Your task to perform on an android device: Search for sushi restaurants on Maps Image 0: 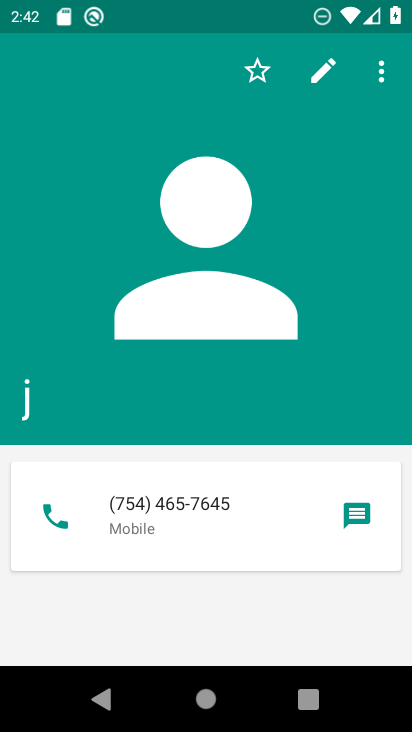
Step 0: press home button
Your task to perform on an android device: Search for sushi restaurants on Maps Image 1: 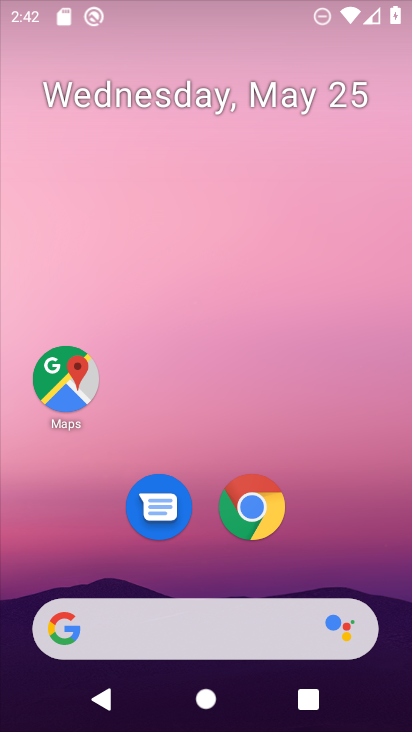
Step 1: drag from (192, 531) to (192, 235)
Your task to perform on an android device: Search for sushi restaurants on Maps Image 2: 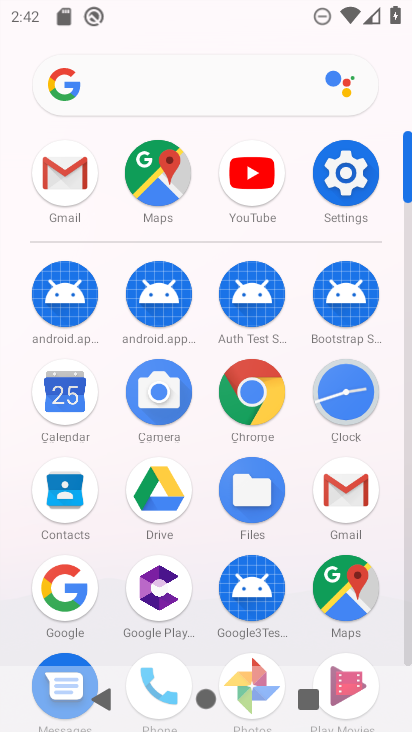
Step 2: click (155, 200)
Your task to perform on an android device: Search for sushi restaurants on Maps Image 3: 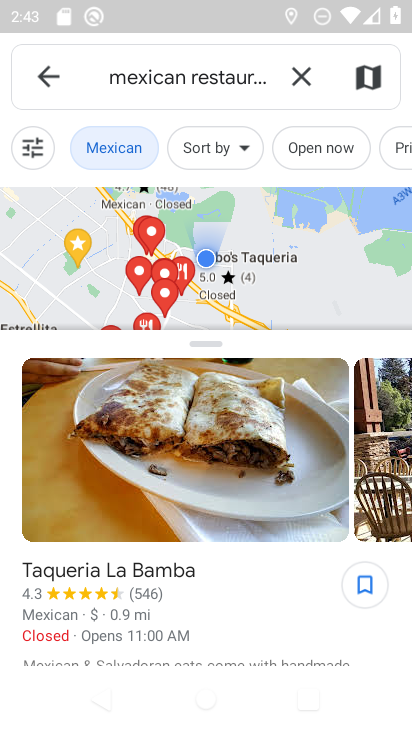
Step 3: click (296, 74)
Your task to perform on an android device: Search for sushi restaurants on Maps Image 4: 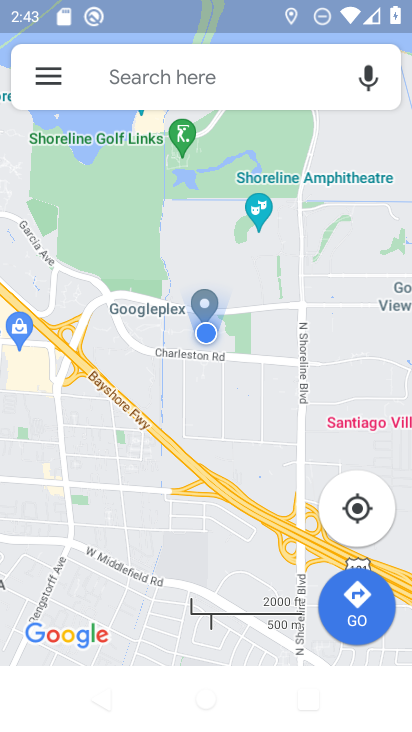
Step 4: click (227, 89)
Your task to perform on an android device: Search for sushi restaurants on Maps Image 5: 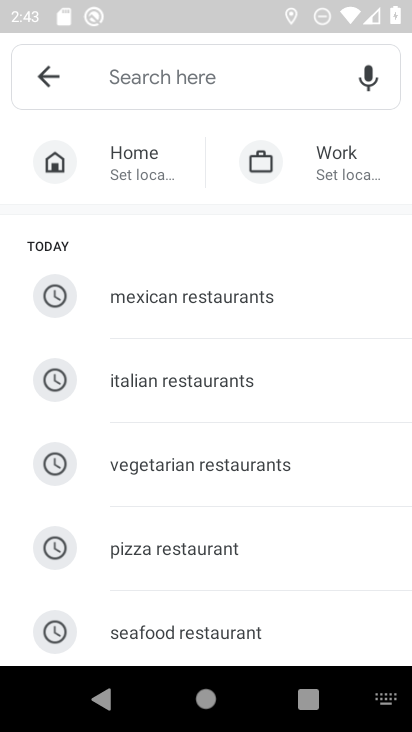
Step 5: type "sushi restaurants"
Your task to perform on an android device: Search for sushi restaurants on Maps Image 6: 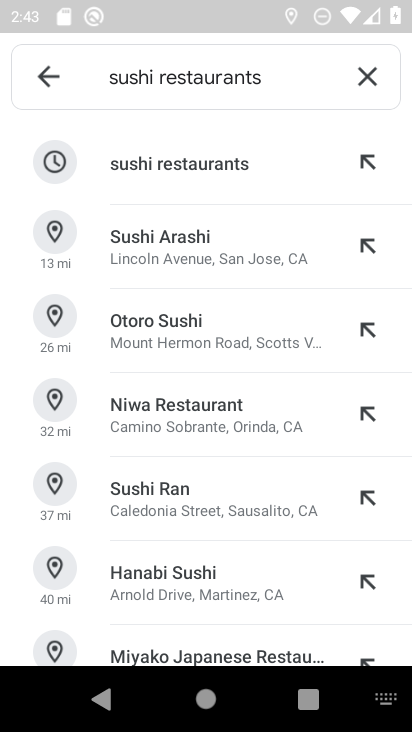
Step 6: click (270, 172)
Your task to perform on an android device: Search for sushi restaurants on Maps Image 7: 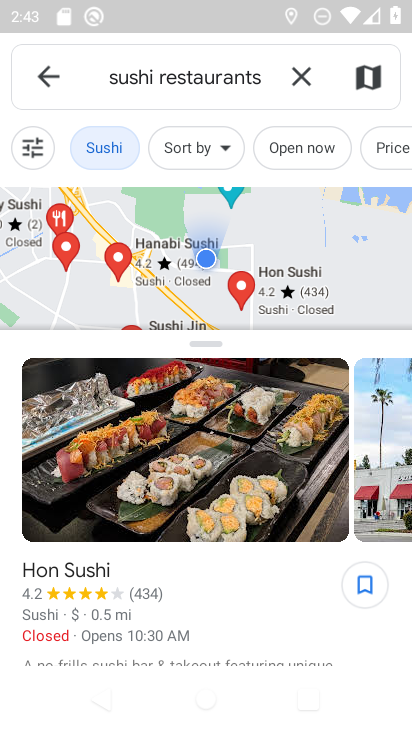
Step 7: task complete